Your task to perform on an android device: turn on improve location accuracy Image 0: 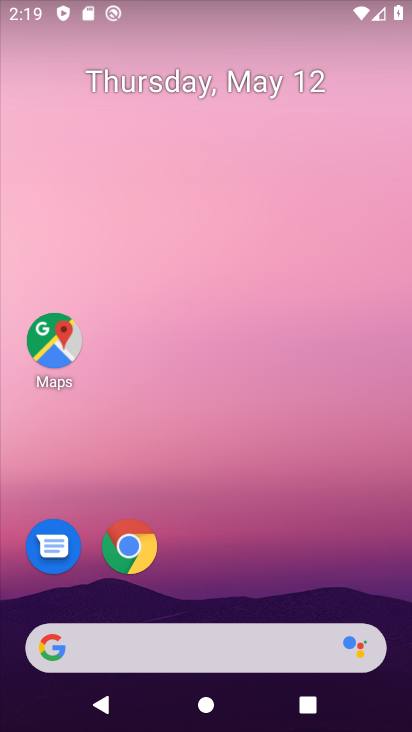
Step 0: drag from (150, 602) to (259, 226)
Your task to perform on an android device: turn on improve location accuracy Image 1: 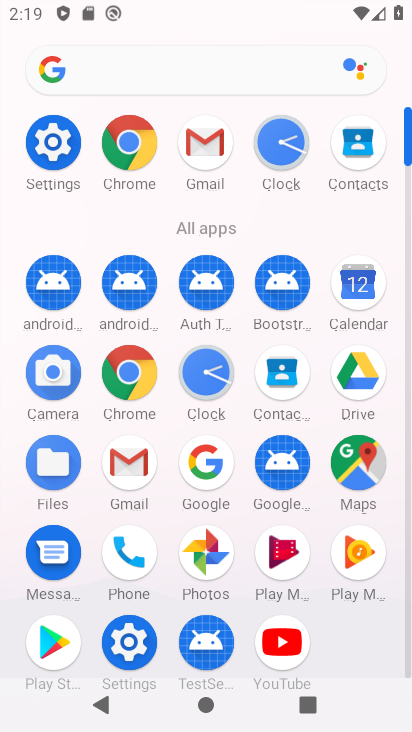
Step 1: click (105, 641)
Your task to perform on an android device: turn on improve location accuracy Image 2: 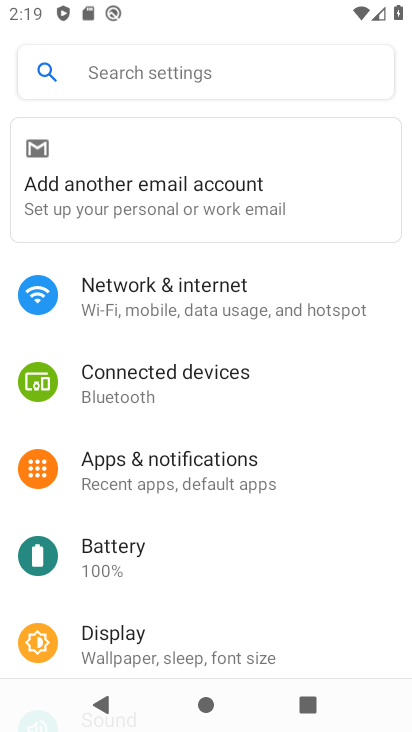
Step 2: drag from (128, 626) to (216, 310)
Your task to perform on an android device: turn on improve location accuracy Image 3: 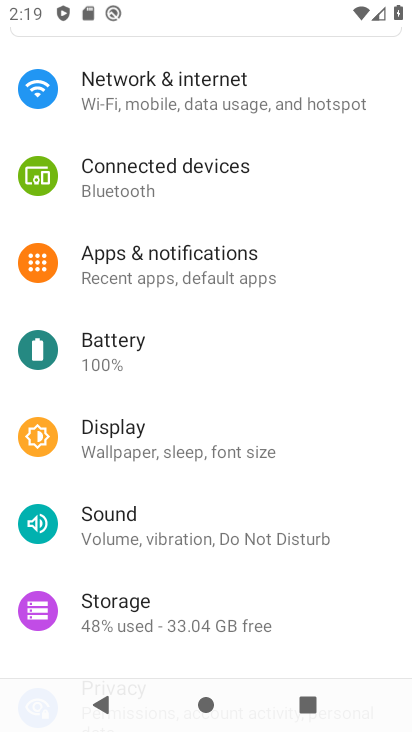
Step 3: drag from (259, 641) to (307, 279)
Your task to perform on an android device: turn on improve location accuracy Image 4: 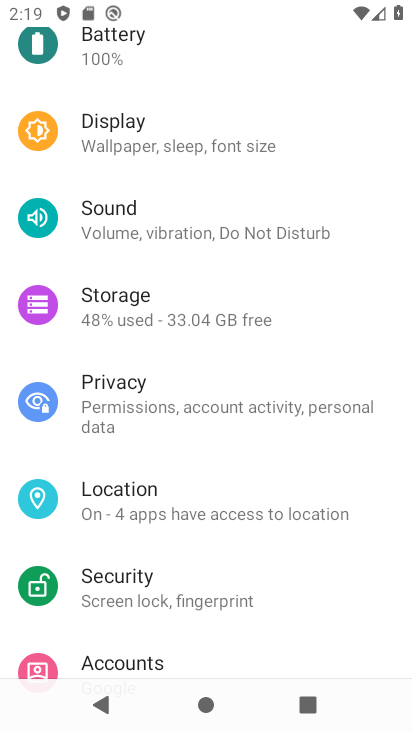
Step 4: click (164, 498)
Your task to perform on an android device: turn on improve location accuracy Image 5: 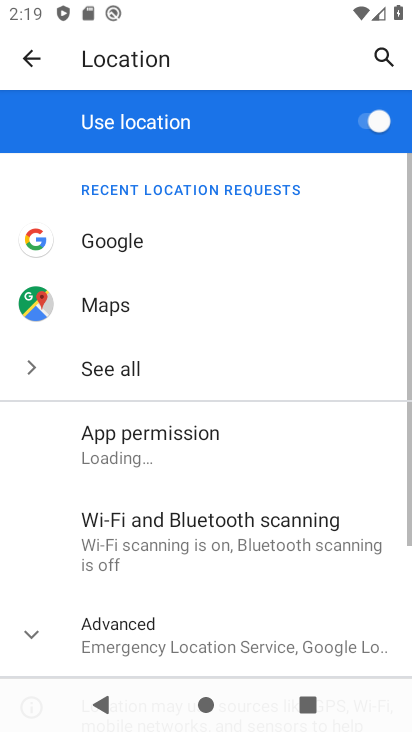
Step 5: drag from (184, 605) to (217, 369)
Your task to perform on an android device: turn on improve location accuracy Image 6: 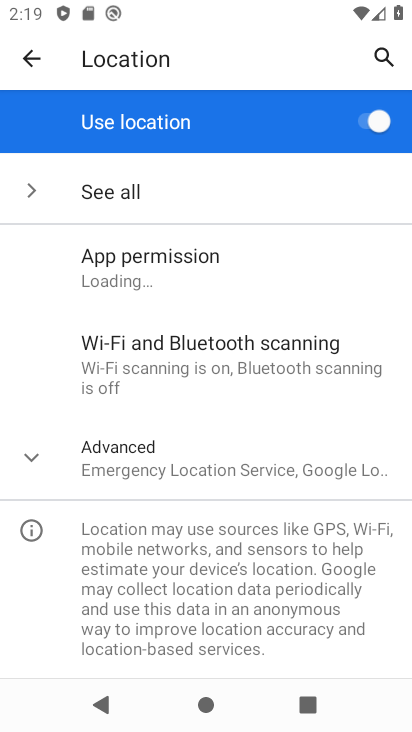
Step 6: click (187, 474)
Your task to perform on an android device: turn on improve location accuracy Image 7: 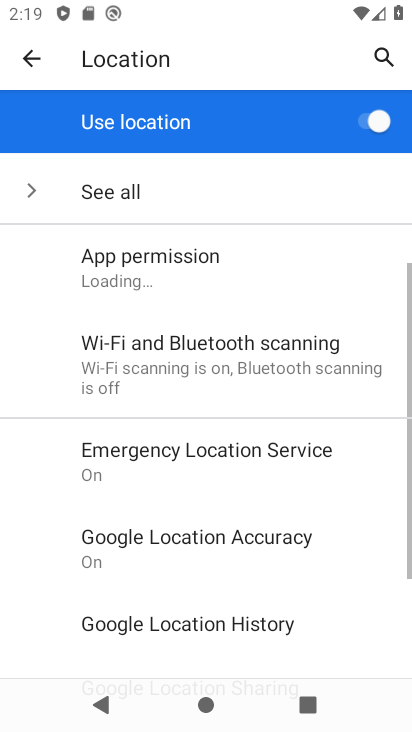
Step 7: drag from (139, 647) to (238, 304)
Your task to perform on an android device: turn on improve location accuracy Image 8: 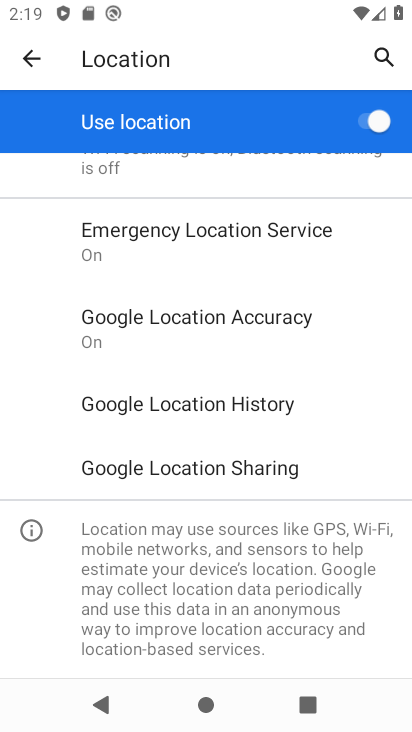
Step 8: click (203, 318)
Your task to perform on an android device: turn on improve location accuracy Image 9: 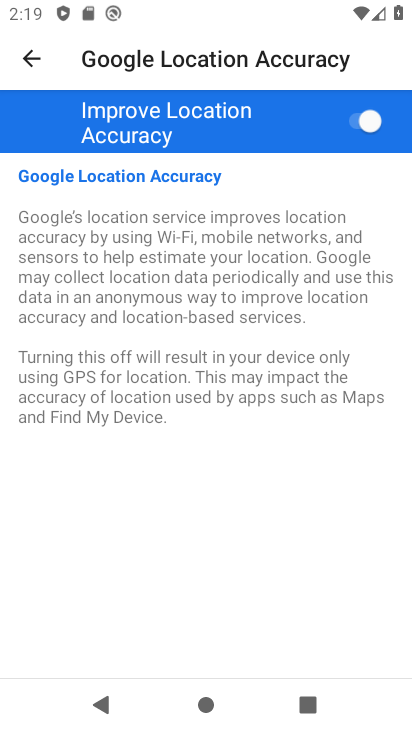
Step 9: task complete